Your task to perform on an android device: Show the shopping cart on bestbuy.com. Add "razer deathadder" to the cart on bestbuy.com, then select checkout. Image 0: 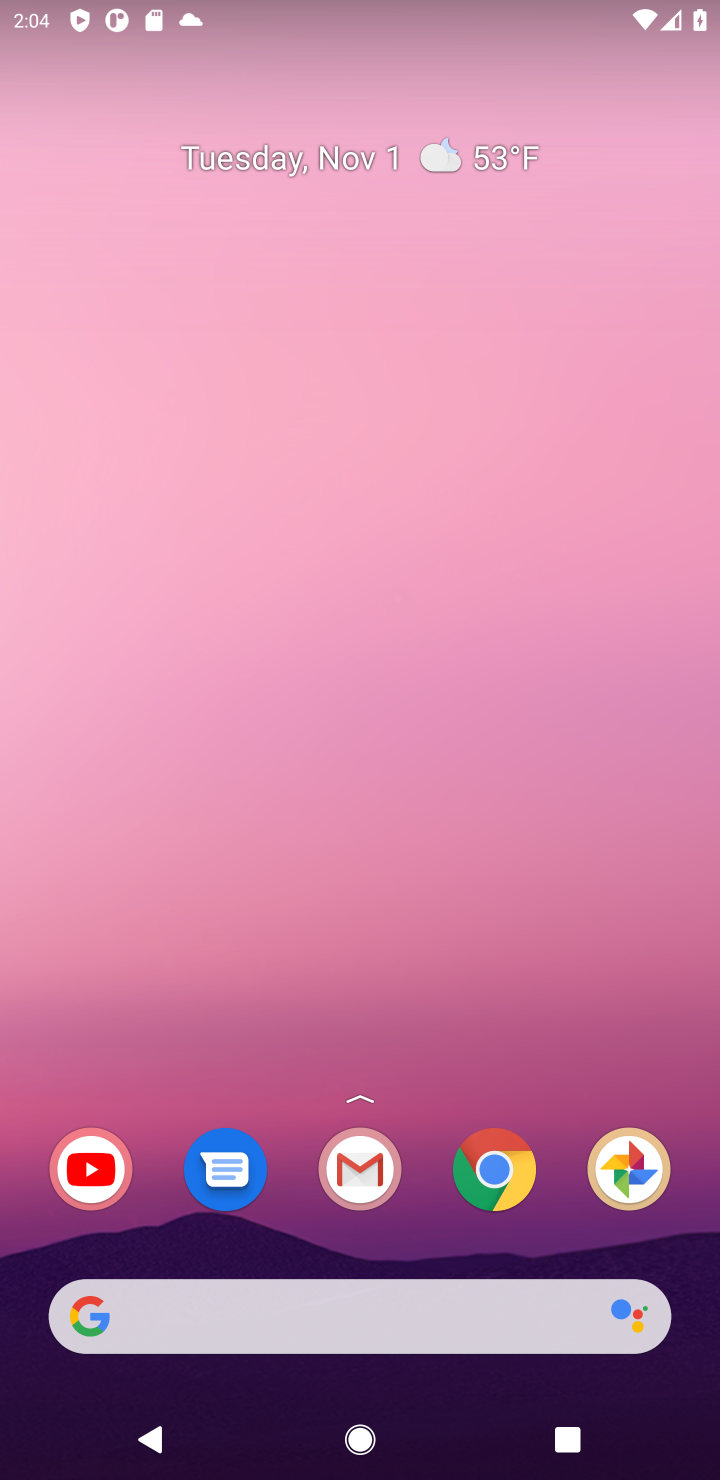
Step 0: click (506, 1148)
Your task to perform on an android device: Show the shopping cart on bestbuy.com. Add "razer deathadder" to the cart on bestbuy.com, then select checkout. Image 1: 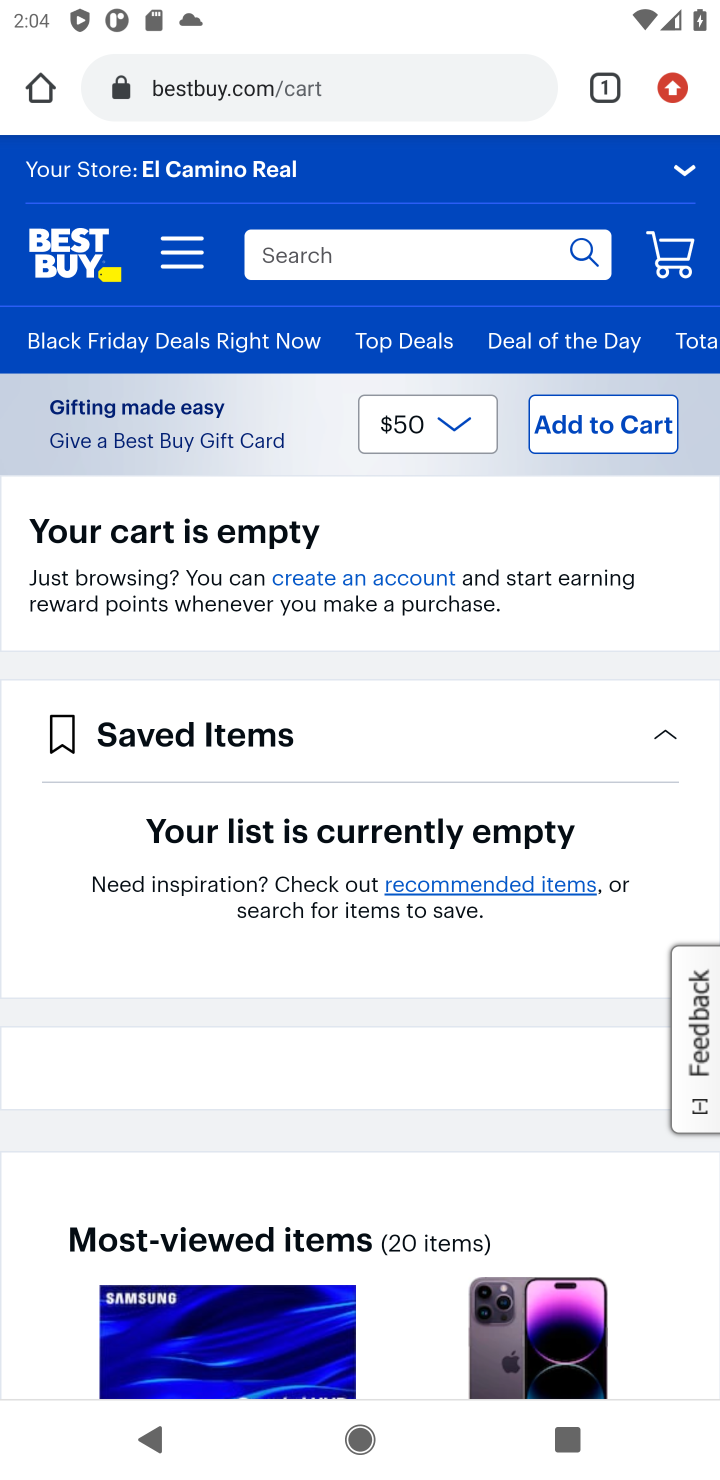
Step 1: click (290, 93)
Your task to perform on an android device: Show the shopping cart on bestbuy.com. Add "razer deathadder" to the cart on bestbuy.com, then select checkout. Image 2: 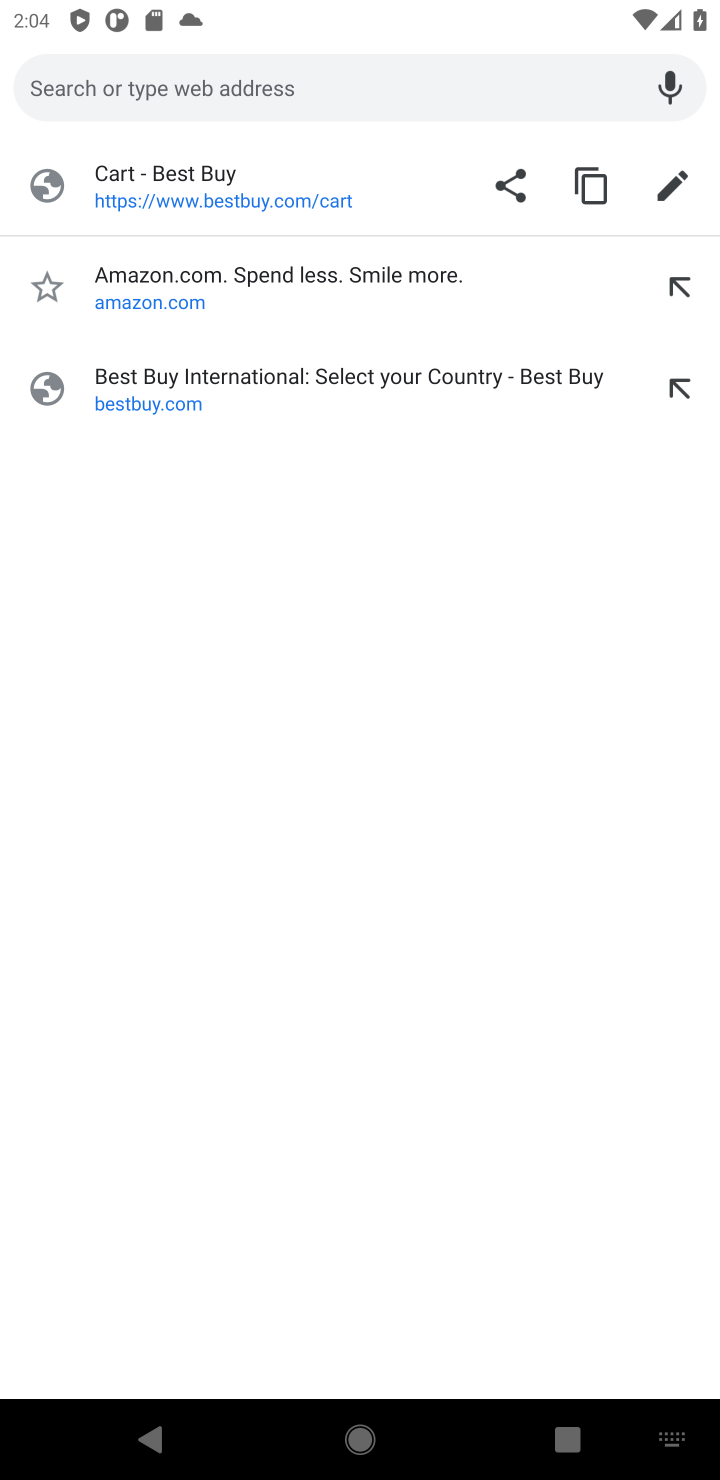
Step 2: click (337, 274)
Your task to perform on an android device: Show the shopping cart on bestbuy.com. Add "razer deathadder" to the cart on bestbuy.com, then select checkout. Image 3: 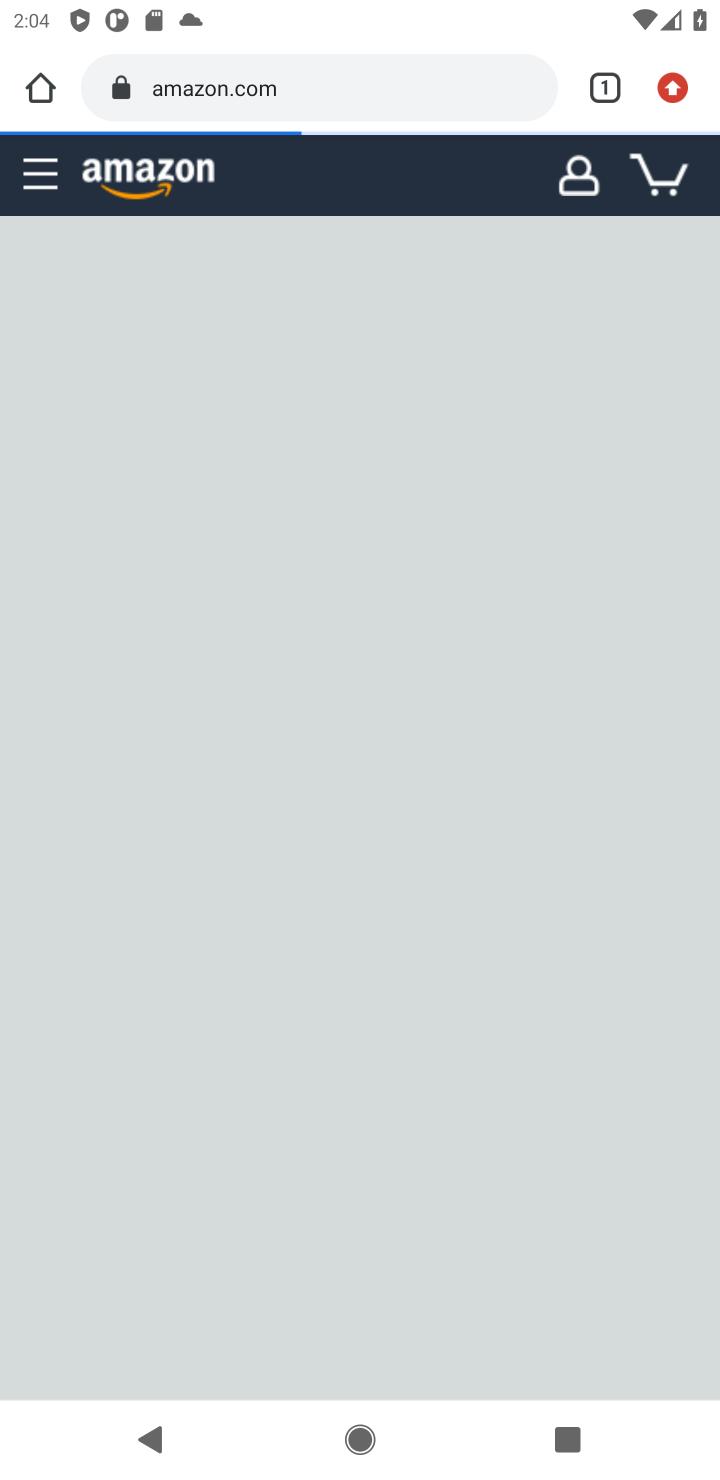
Step 3: press back button
Your task to perform on an android device: Show the shopping cart on bestbuy.com. Add "razer deathadder" to the cart on bestbuy.com, then select checkout. Image 4: 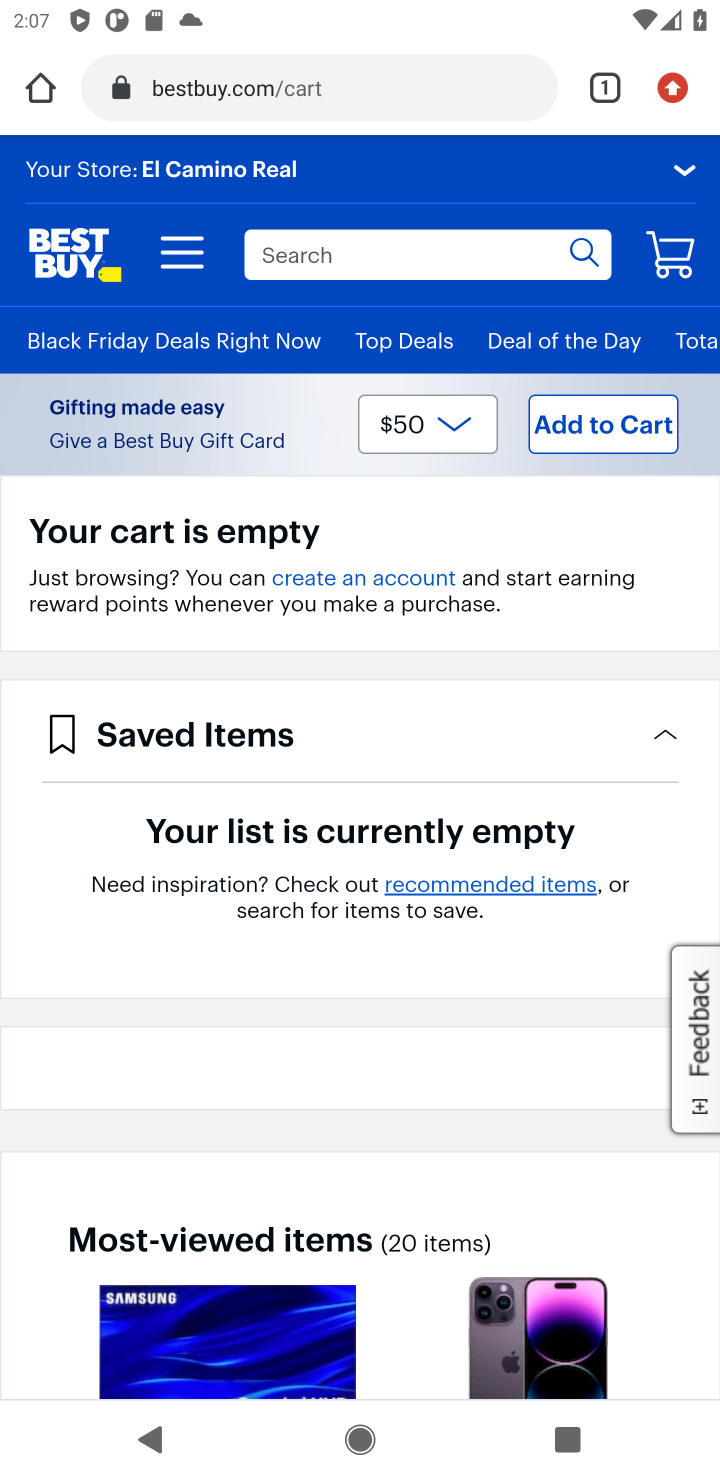
Step 4: click (377, 240)
Your task to perform on an android device: Show the shopping cart on bestbuy.com. Add "razer deathadder" to the cart on bestbuy.com, then select checkout. Image 5: 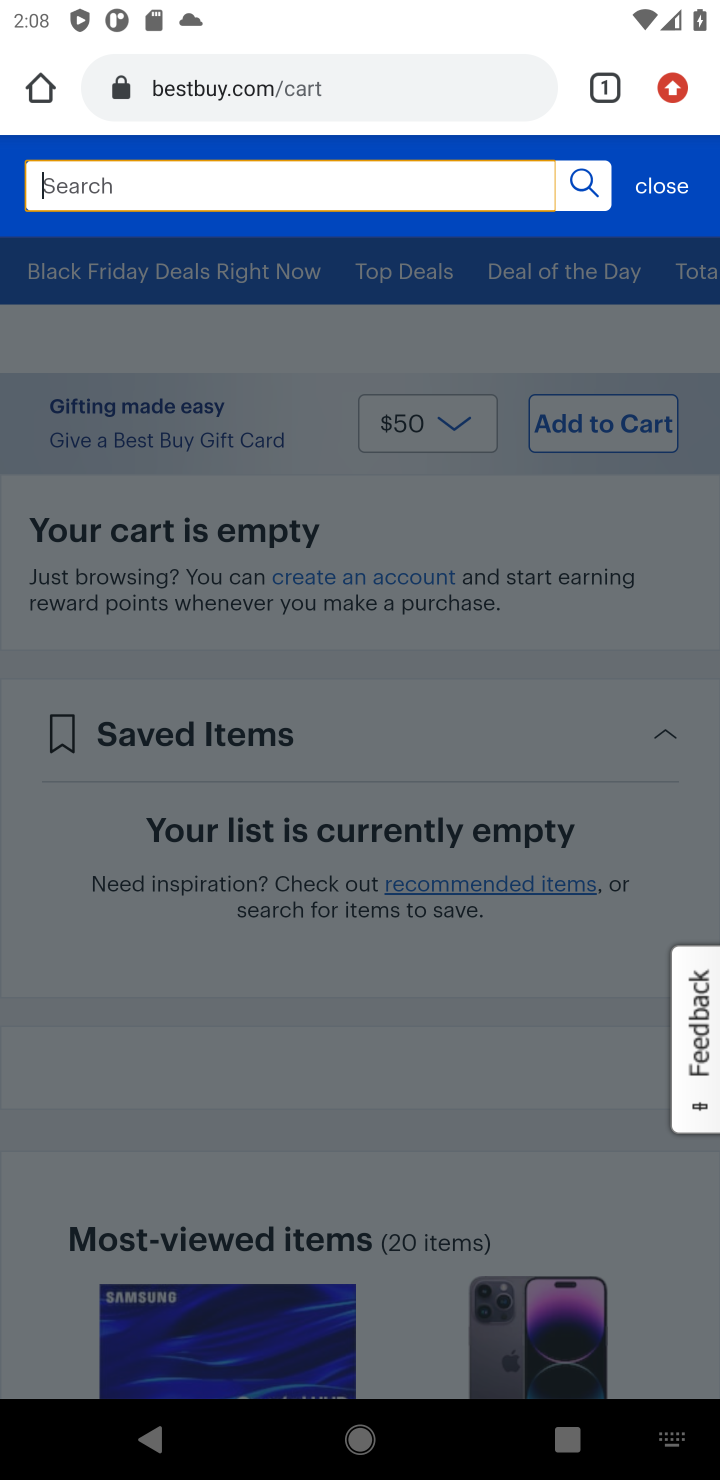
Step 5: type "razer deathadder"
Your task to perform on an android device: Show the shopping cart on bestbuy.com. Add "razer deathadder" to the cart on bestbuy.com, then select checkout. Image 6: 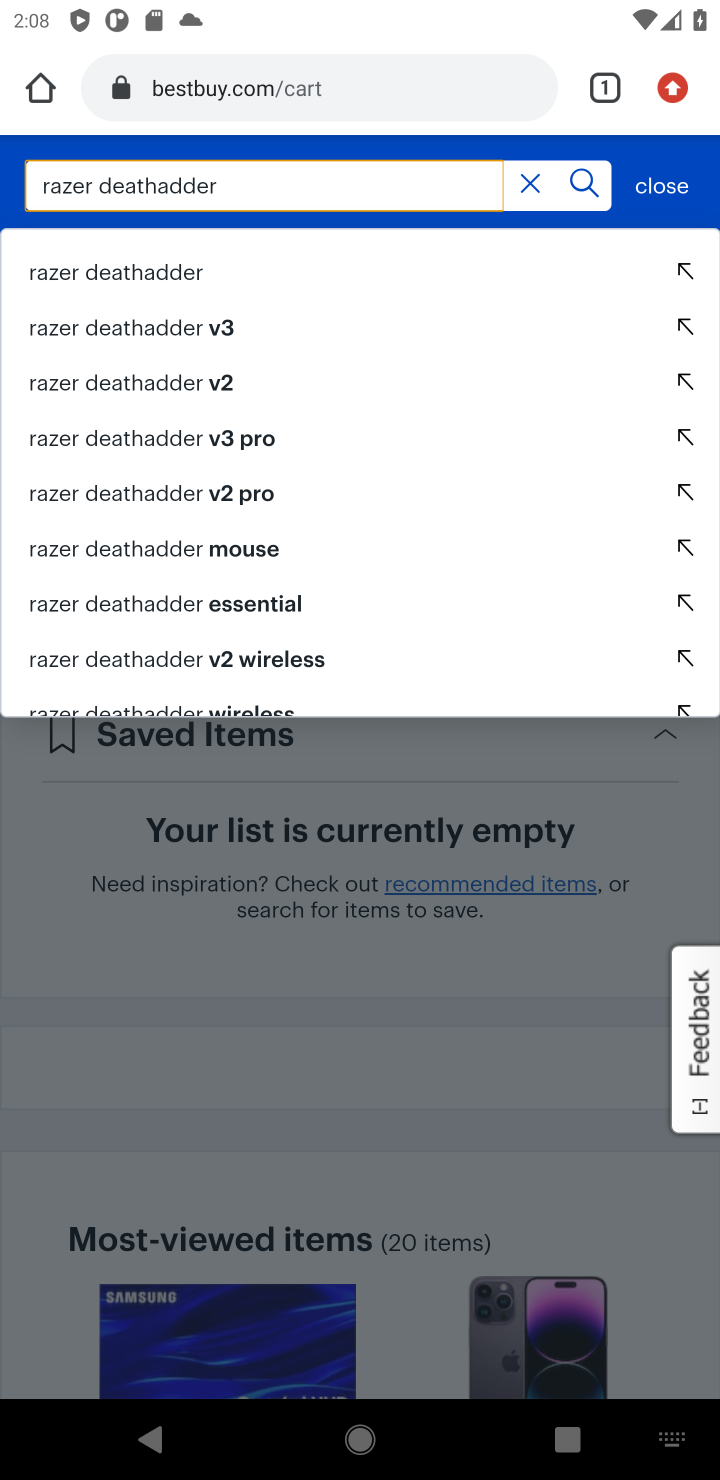
Step 6: click (174, 283)
Your task to perform on an android device: Show the shopping cart on bestbuy.com. Add "razer deathadder" to the cart on bestbuy.com, then select checkout. Image 7: 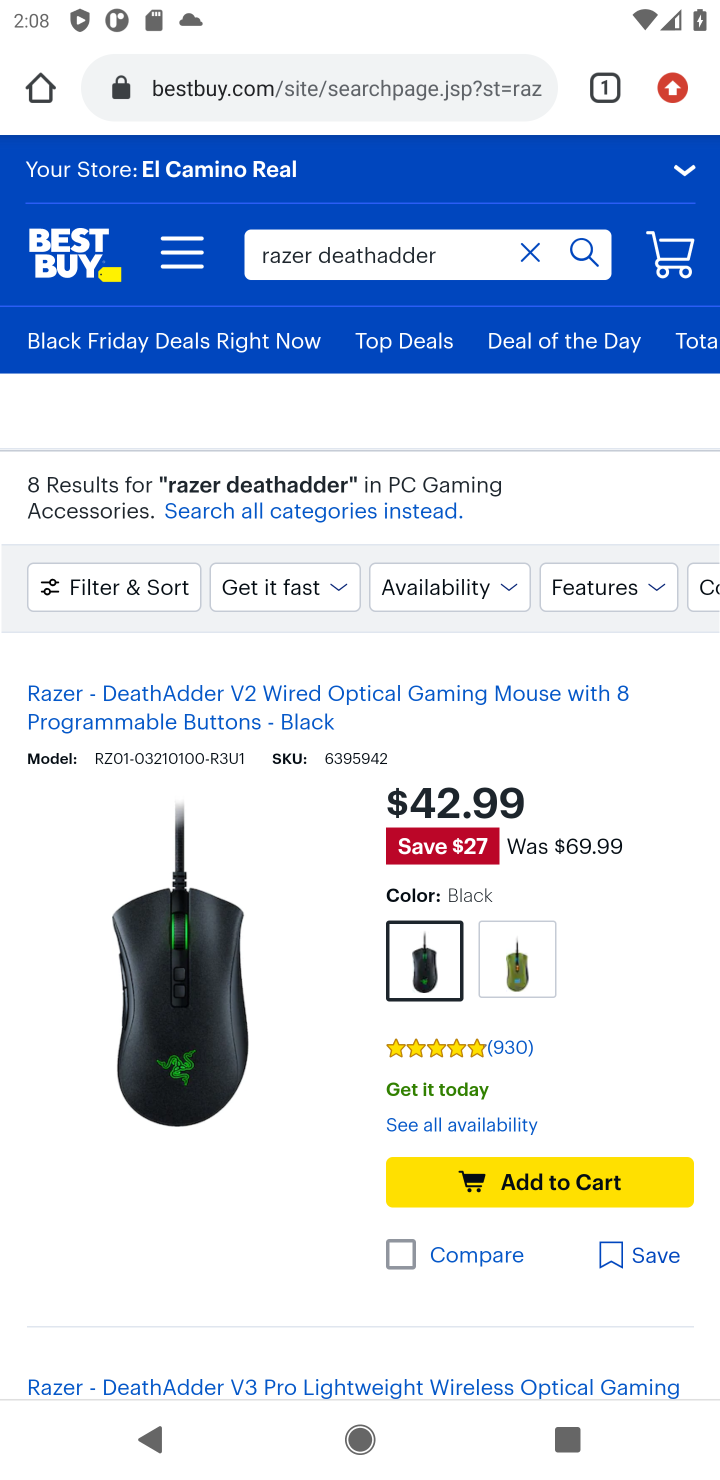
Step 7: click (560, 1188)
Your task to perform on an android device: Show the shopping cart on bestbuy.com. Add "razer deathadder" to the cart on bestbuy.com, then select checkout. Image 8: 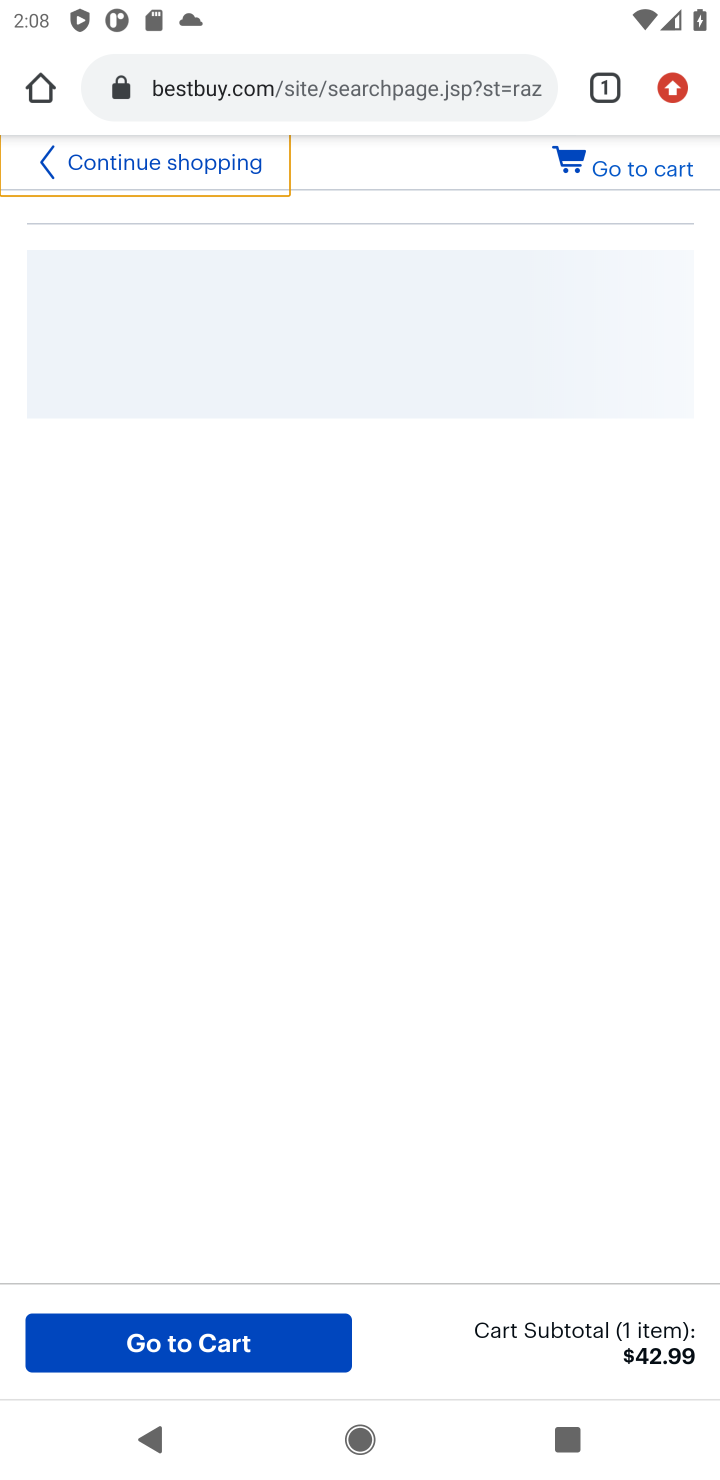
Step 8: click (664, 242)
Your task to perform on an android device: Show the shopping cart on bestbuy.com. Add "razer deathadder" to the cart on bestbuy.com, then select checkout. Image 9: 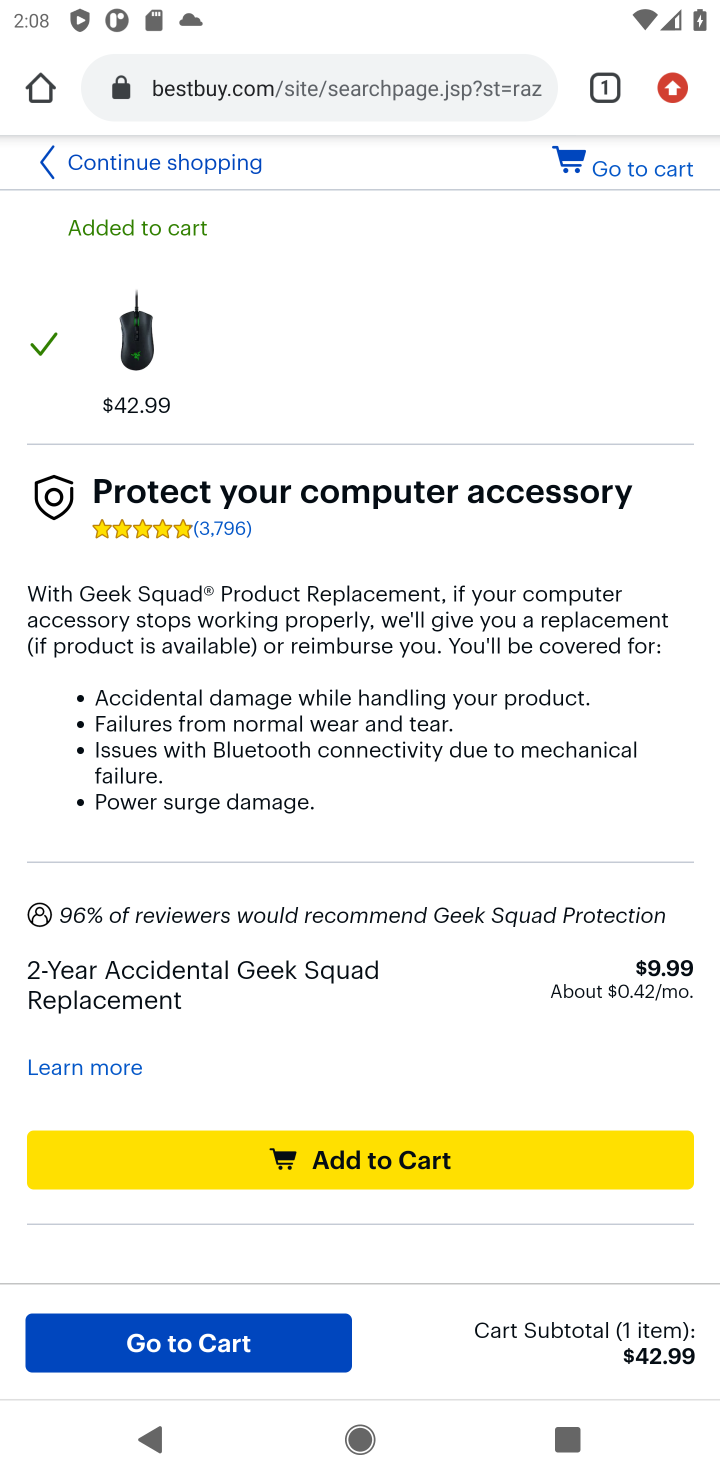
Step 9: click (253, 1345)
Your task to perform on an android device: Show the shopping cart on bestbuy.com. Add "razer deathadder" to the cart on bestbuy.com, then select checkout. Image 10: 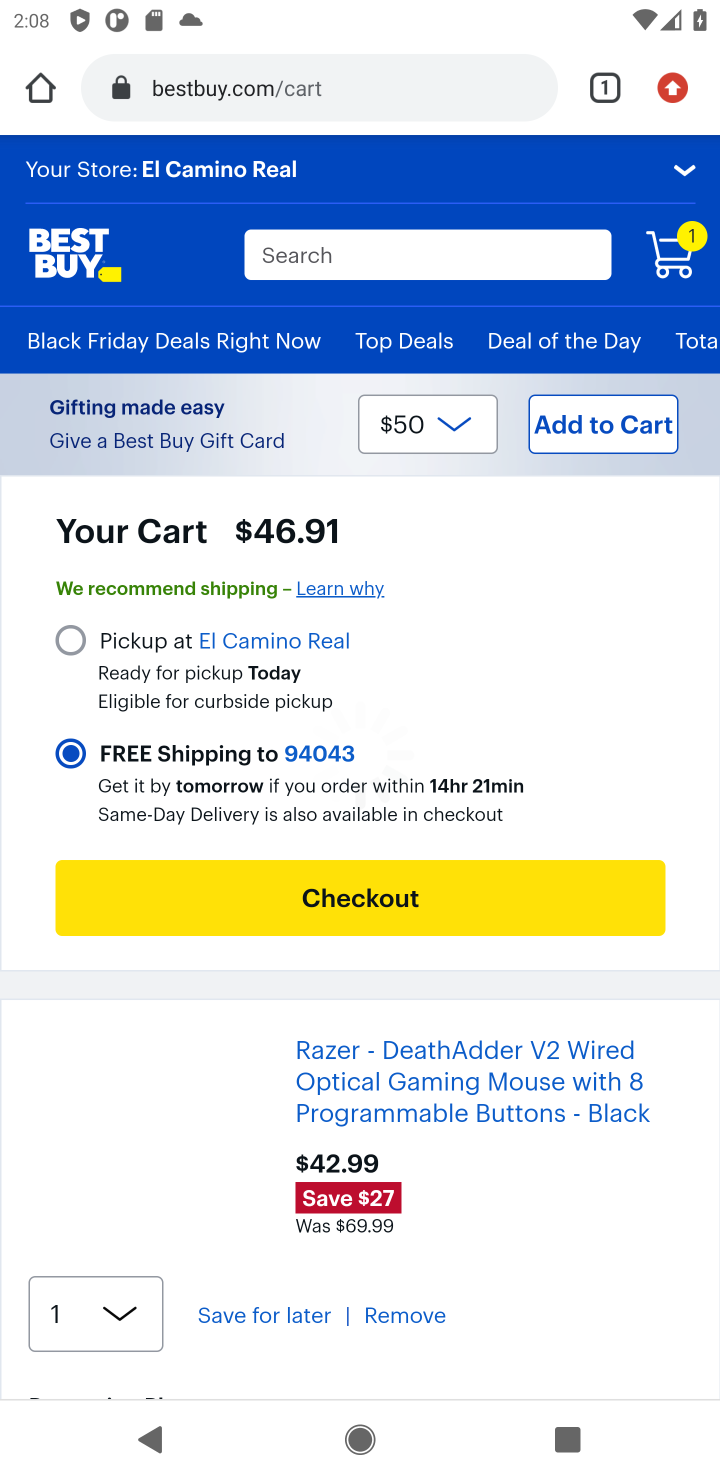
Step 10: click (623, 895)
Your task to perform on an android device: Show the shopping cart on bestbuy.com. Add "razer deathadder" to the cart on bestbuy.com, then select checkout. Image 11: 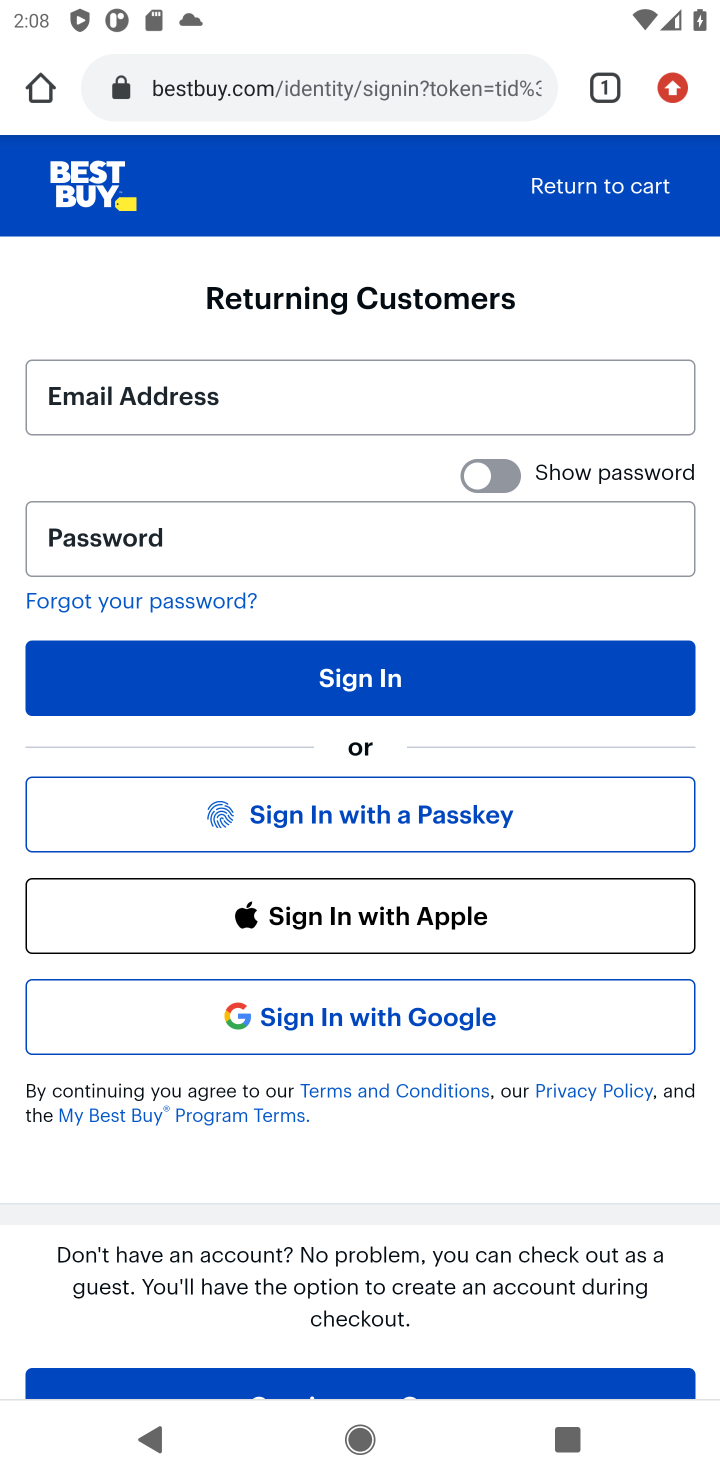
Step 11: task complete